Your task to perform on an android device: Add "razer blade" to the cart on costco.com Image 0: 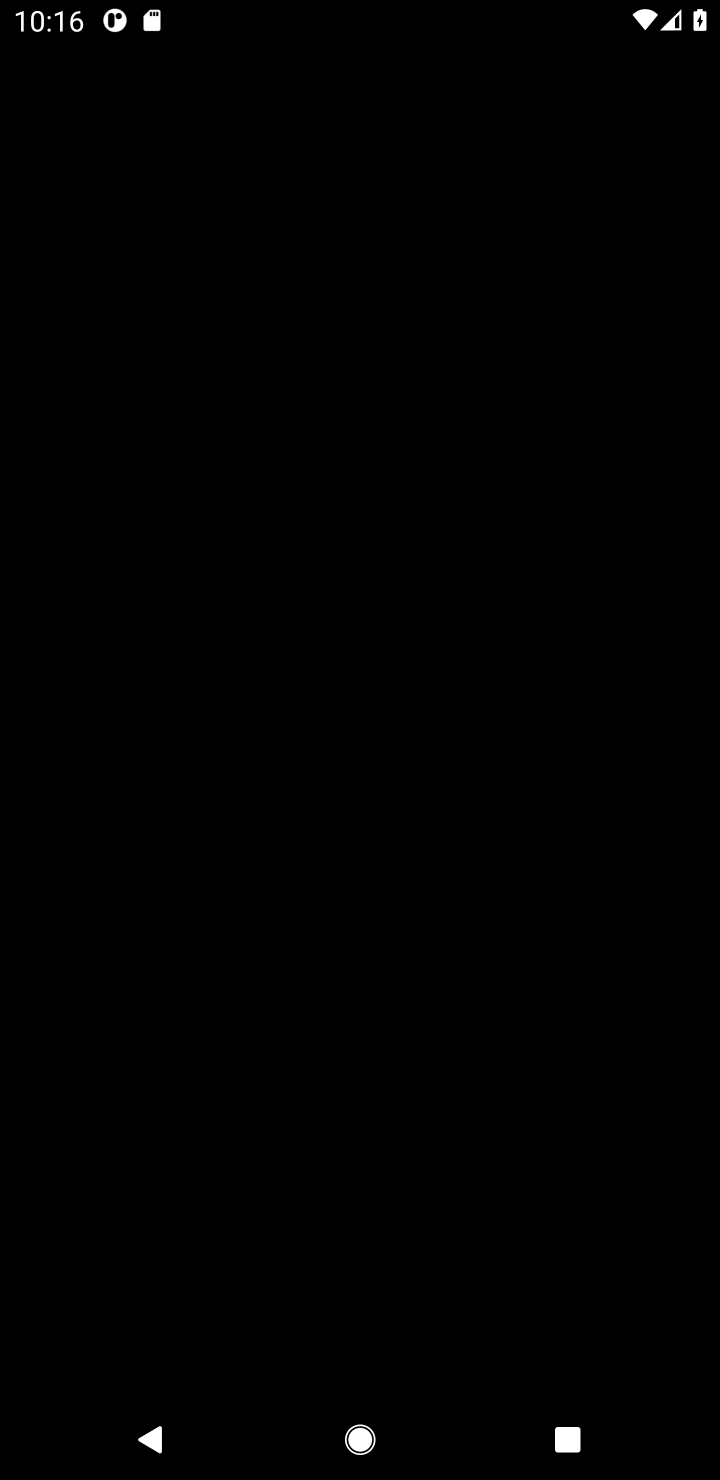
Step 0: press home button
Your task to perform on an android device: Add "razer blade" to the cart on costco.com Image 1: 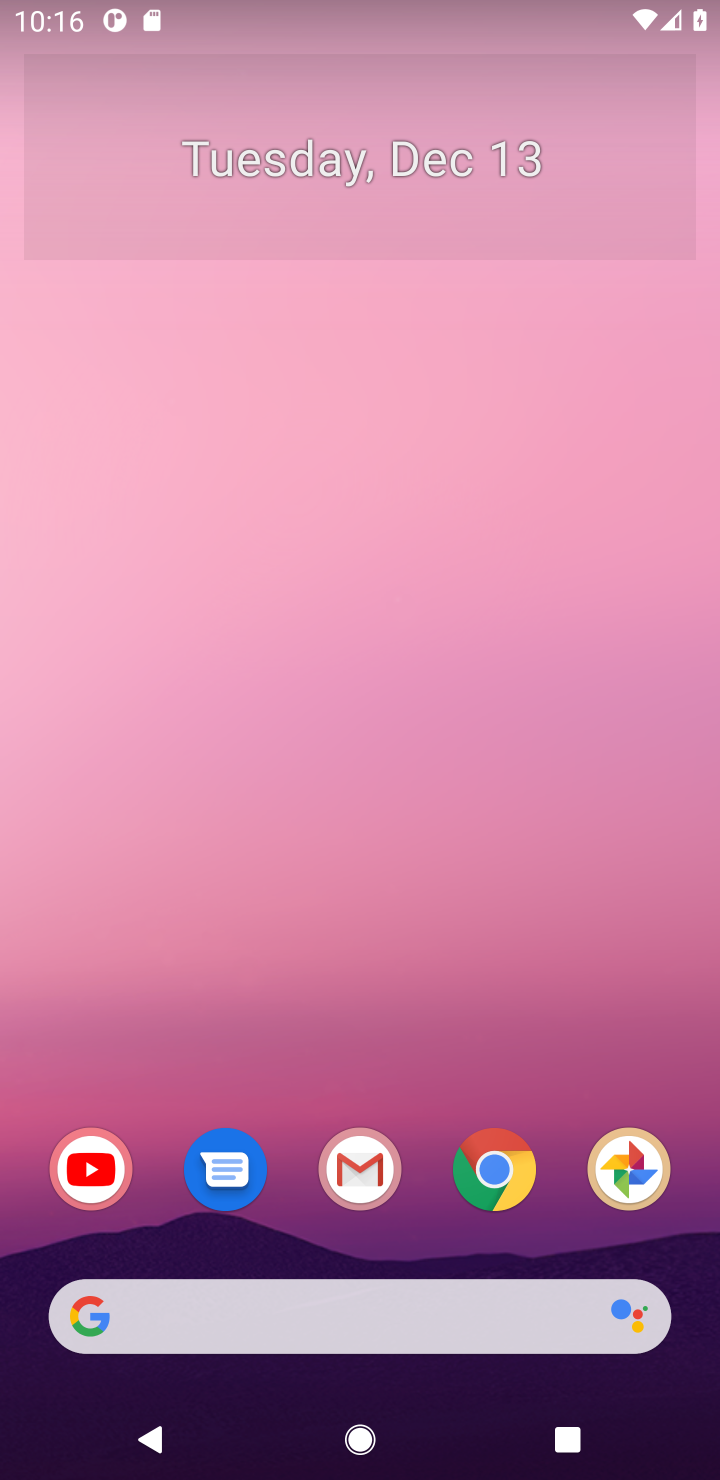
Step 1: click (356, 1324)
Your task to perform on an android device: Add "razer blade" to the cart on costco.com Image 2: 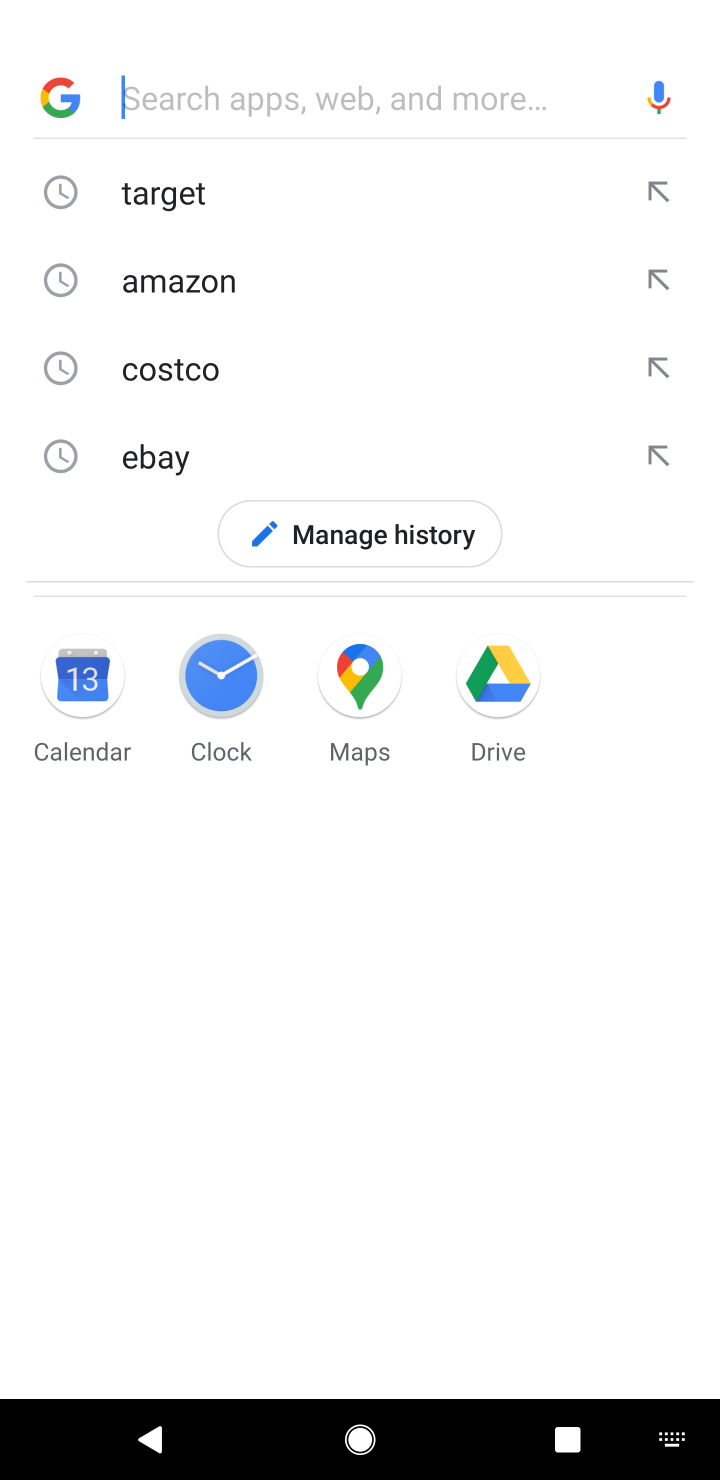
Step 2: click (162, 381)
Your task to perform on an android device: Add "razer blade" to the cart on costco.com Image 3: 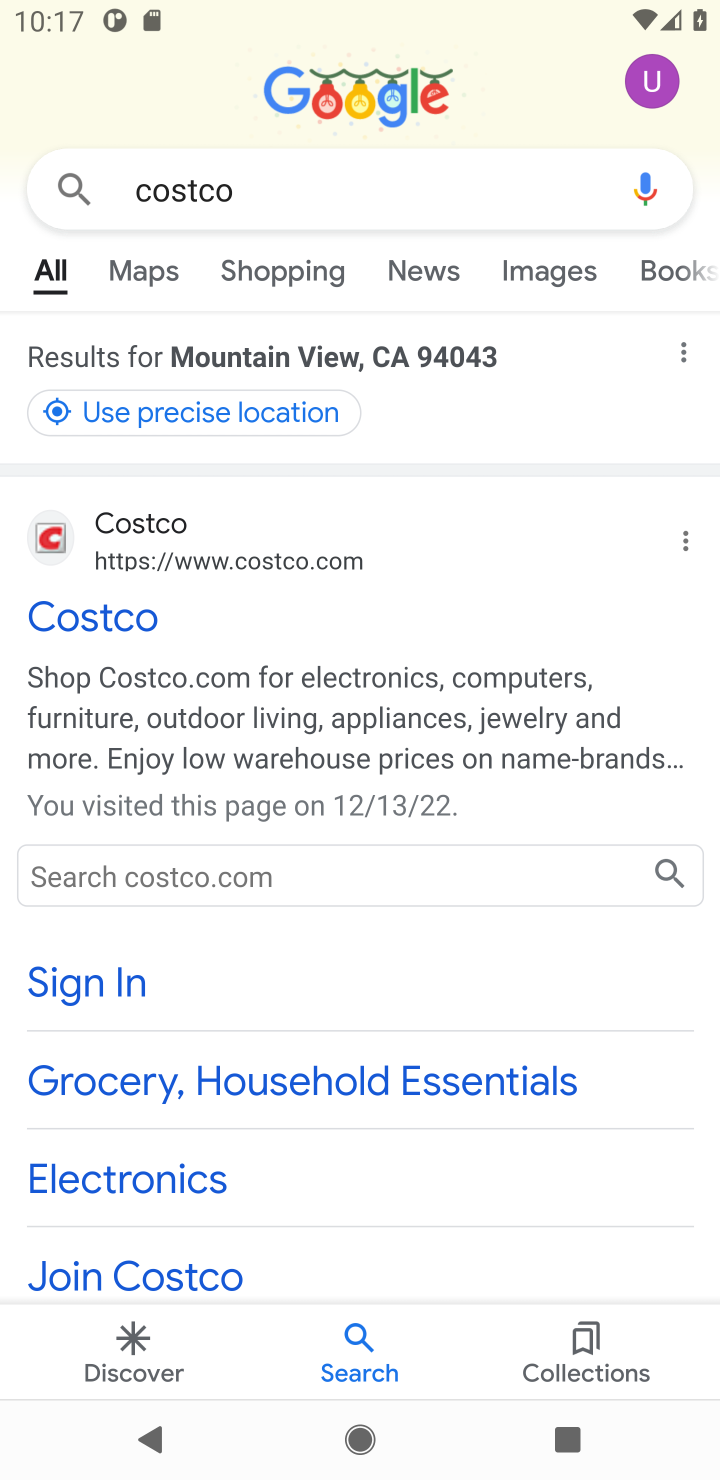
Step 3: click (78, 612)
Your task to perform on an android device: Add "razer blade" to the cart on costco.com Image 4: 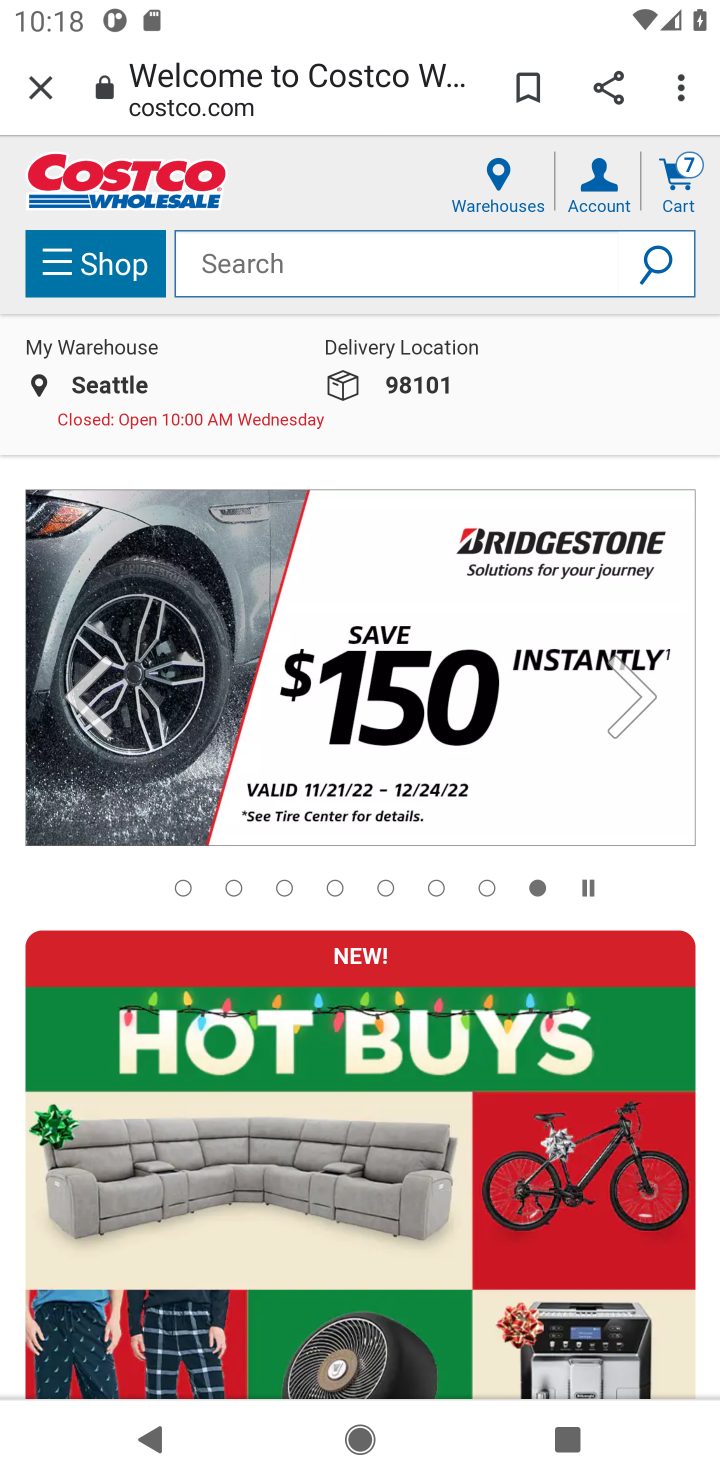
Step 4: task complete